Your task to perform on an android device: What is the recent news? Image 0: 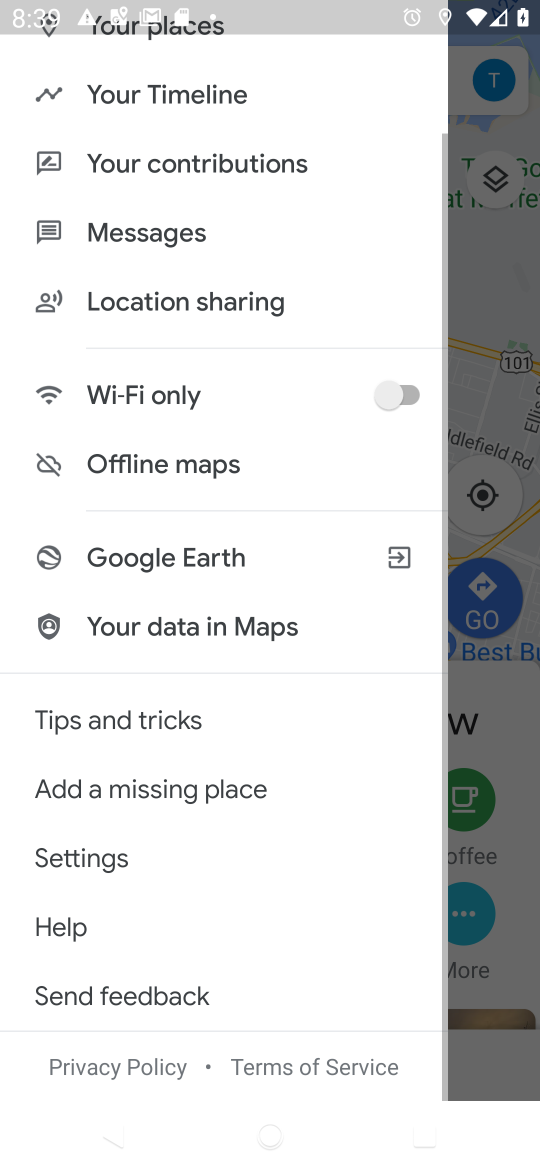
Step 0: press home button
Your task to perform on an android device: What is the recent news? Image 1: 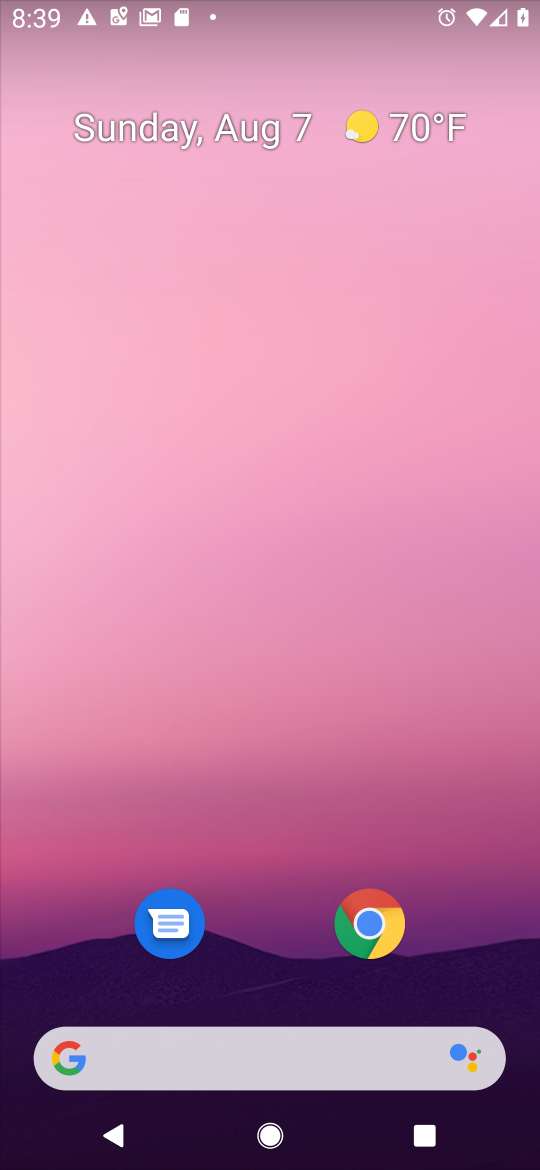
Step 1: drag from (494, 842) to (328, 60)
Your task to perform on an android device: What is the recent news? Image 2: 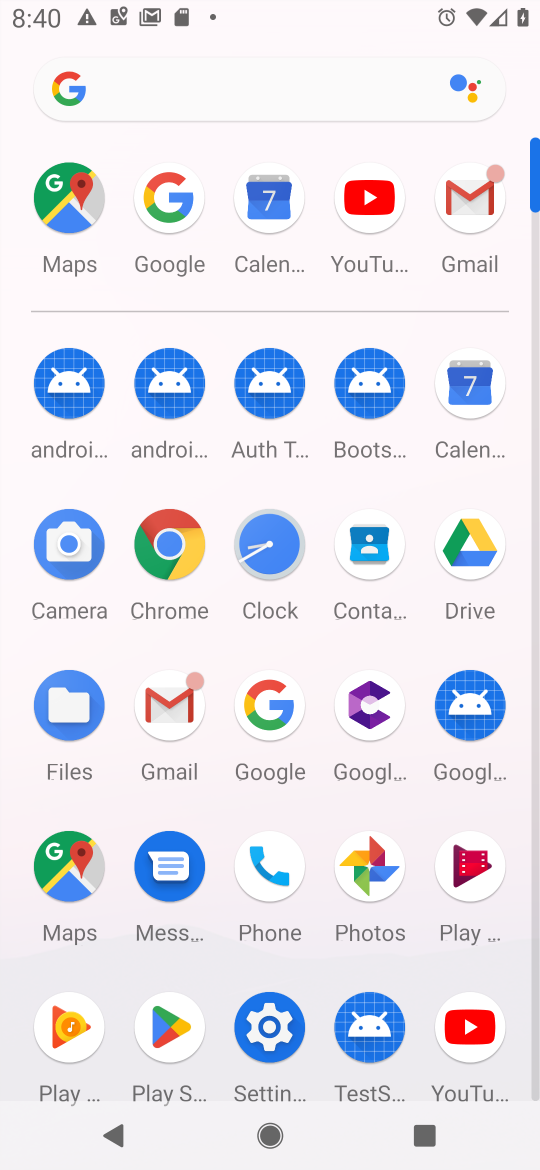
Step 2: click (269, 711)
Your task to perform on an android device: What is the recent news? Image 3: 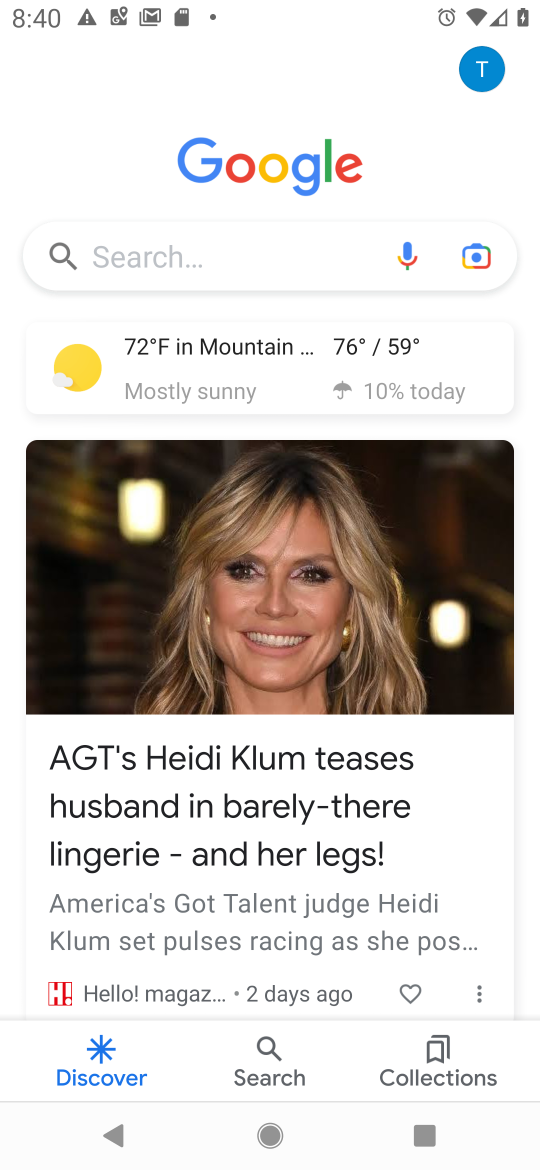
Step 3: click (135, 273)
Your task to perform on an android device: What is the recent news? Image 4: 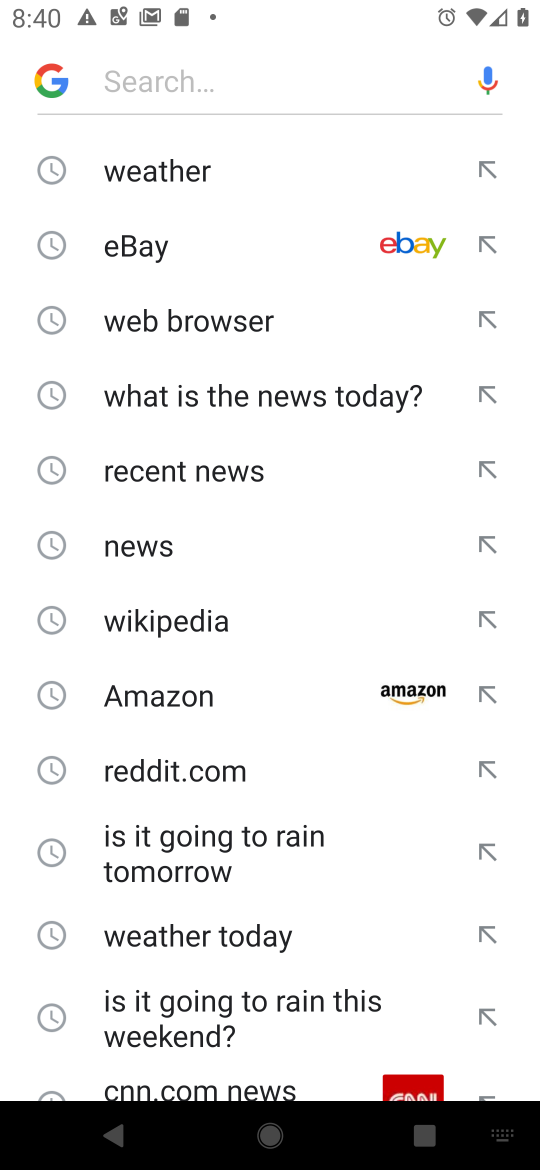
Step 4: drag from (194, 989) to (246, 606)
Your task to perform on an android device: What is the recent news? Image 5: 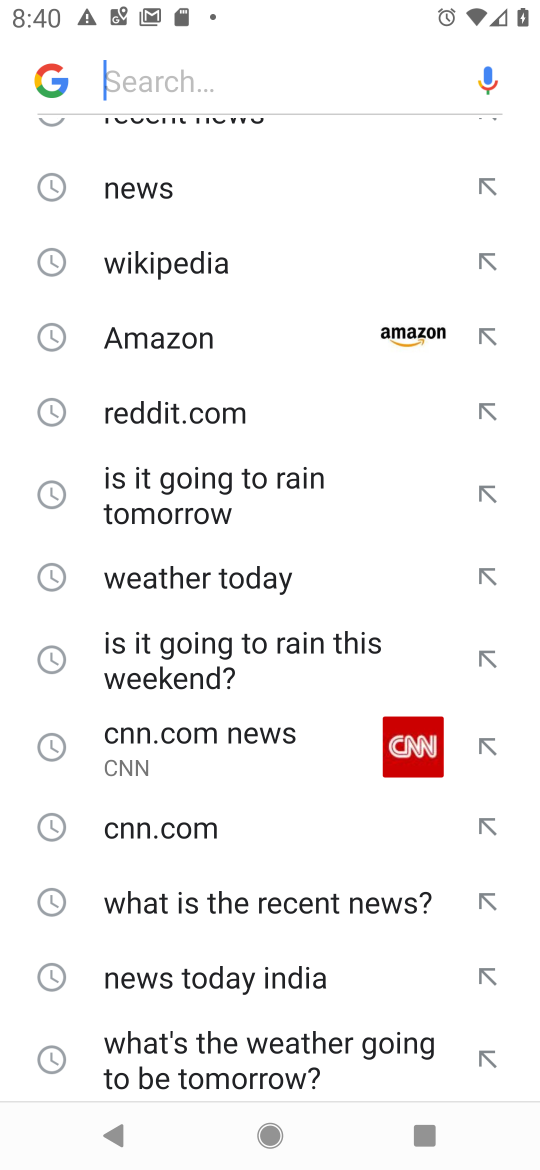
Step 5: drag from (180, 143) to (214, 974)
Your task to perform on an android device: What is the recent news? Image 6: 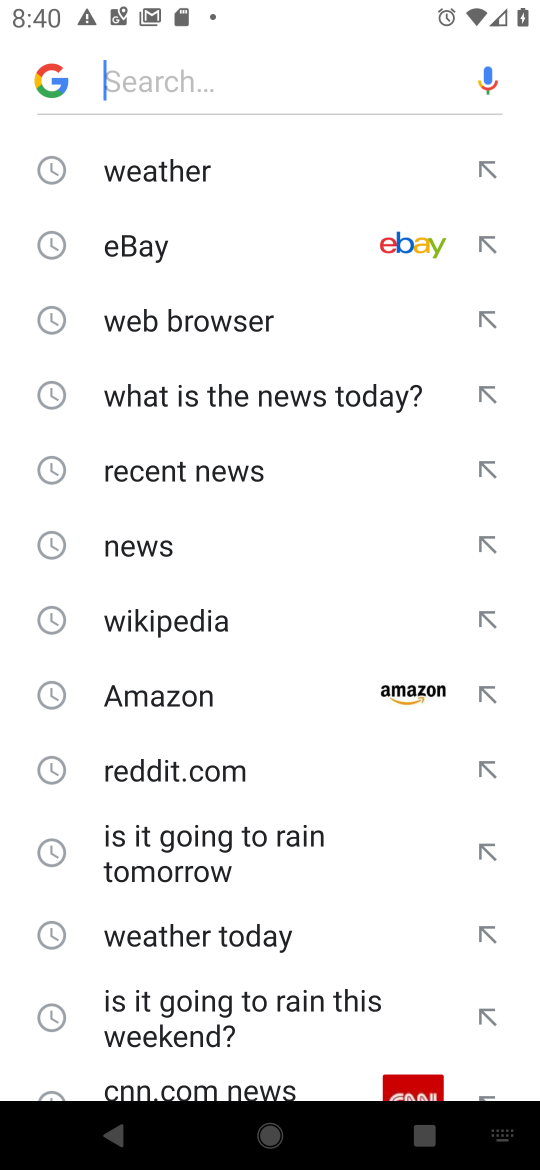
Step 6: click (182, 473)
Your task to perform on an android device: What is the recent news? Image 7: 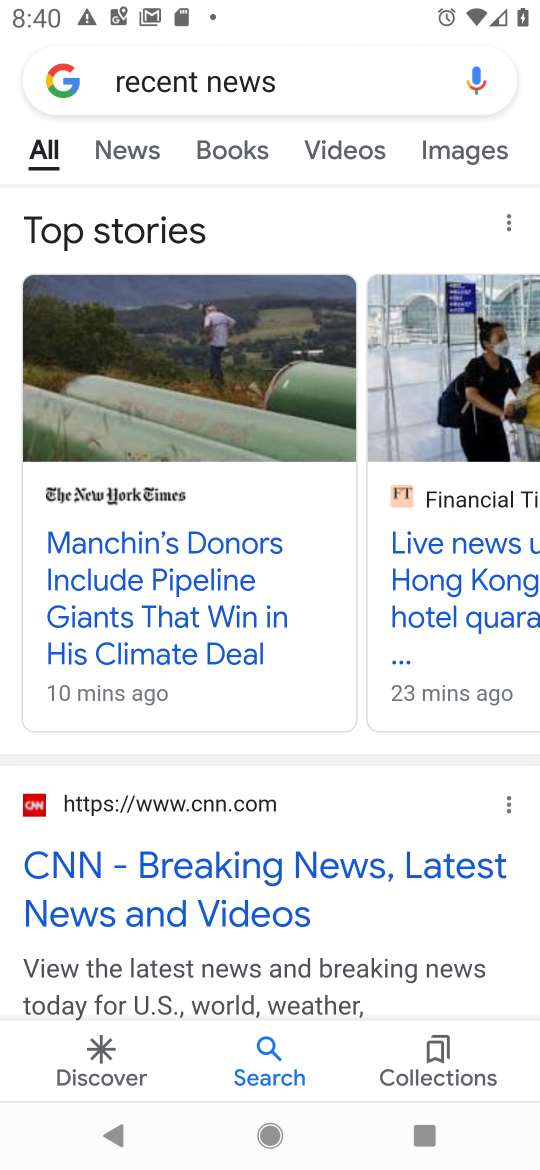
Step 7: task complete